Your task to perform on an android device: Open accessibility settings Image 0: 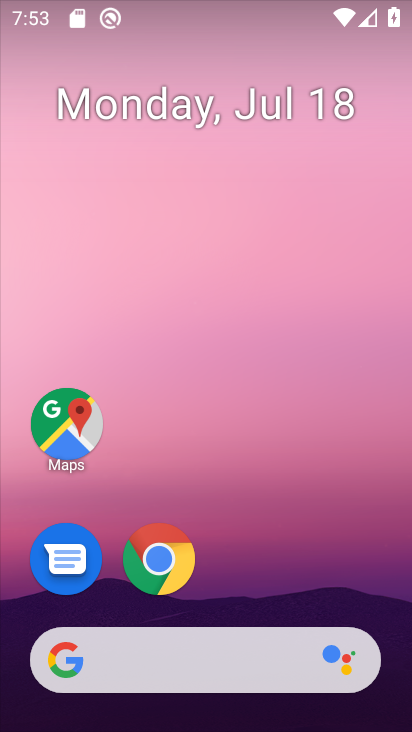
Step 0: drag from (301, 551) to (346, 127)
Your task to perform on an android device: Open accessibility settings Image 1: 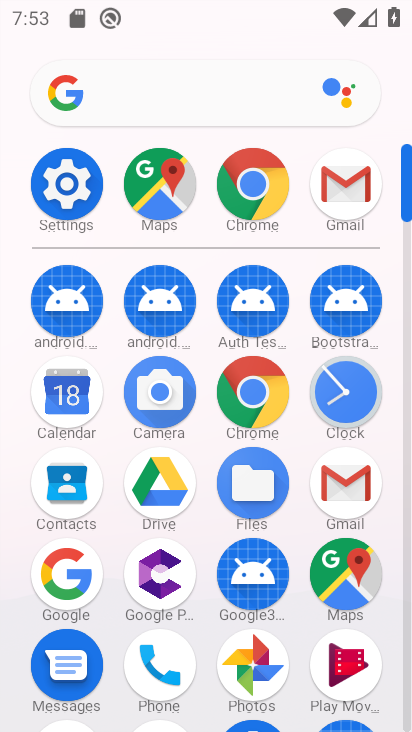
Step 1: click (76, 191)
Your task to perform on an android device: Open accessibility settings Image 2: 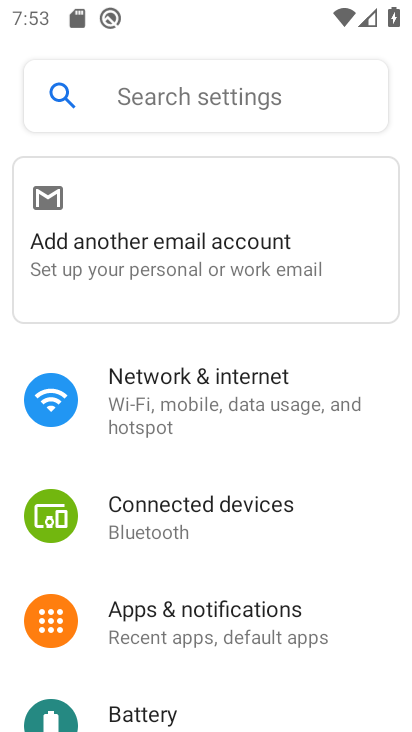
Step 2: drag from (349, 568) to (356, 471)
Your task to perform on an android device: Open accessibility settings Image 3: 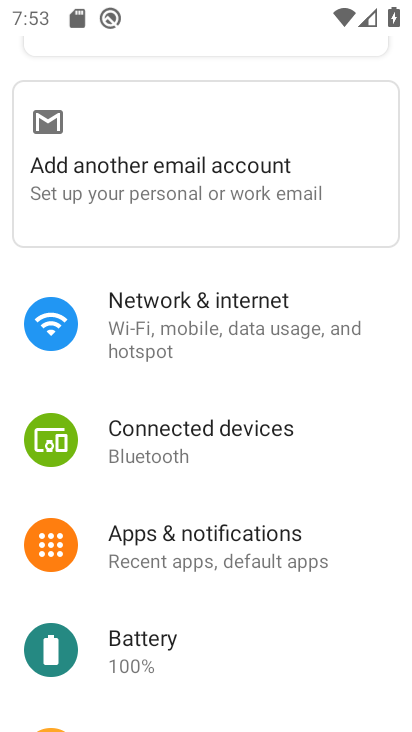
Step 3: drag from (360, 619) to (363, 532)
Your task to perform on an android device: Open accessibility settings Image 4: 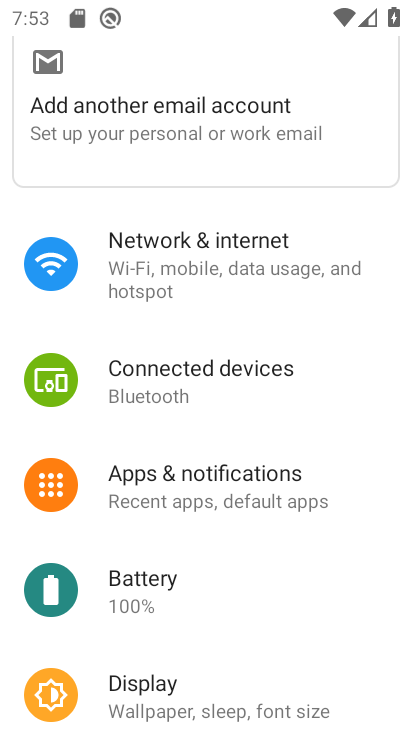
Step 4: drag from (335, 599) to (344, 525)
Your task to perform on an android device: Open accessibility settings Image 5: 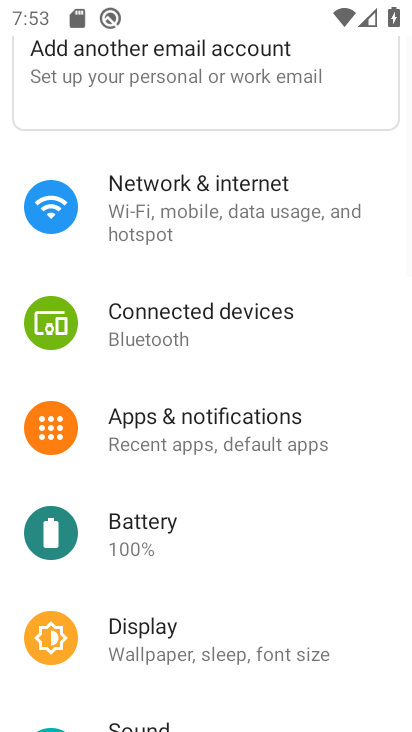
Step 5: drag from (343, 586) to (348, 503)
Your task to perform on an android device: Open accessibility settings Image 6: 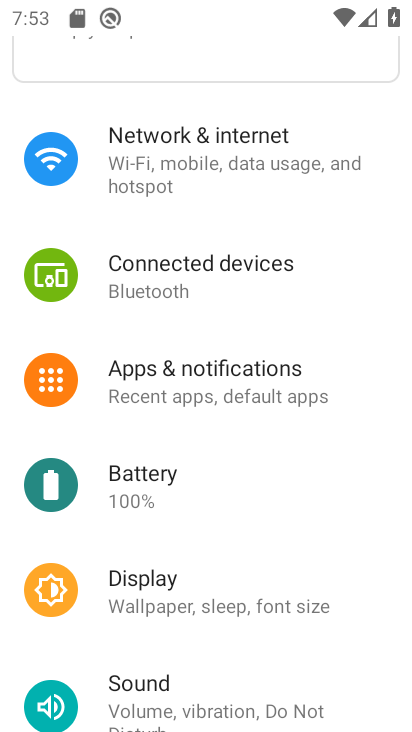
Step 6: drag from (351, 631) to (349, 526)
Your task to perform on an android device: Open accessibility settings Image 7: 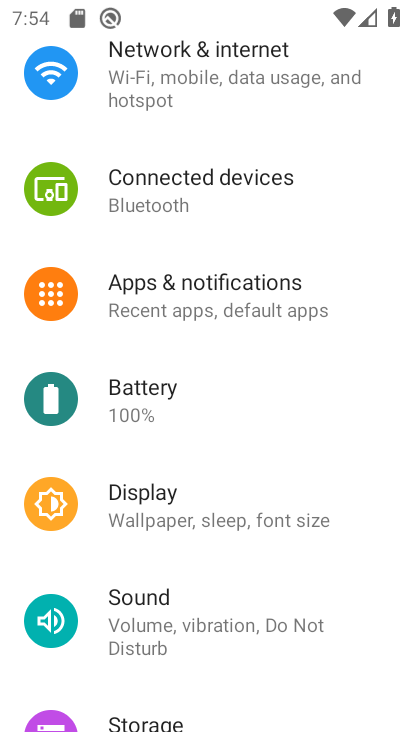
Step 7: drag from (353, 639) to (380, 519)
Your task to perform on an android device: Open accessibility settings Image 8: 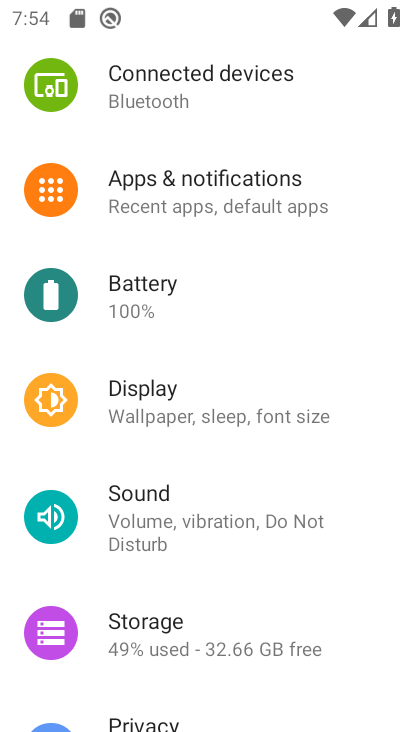
Step 8: drag from (362, 602) to (364, 509)
Your task to perform on an android device: Open accessibility settings Image 9: 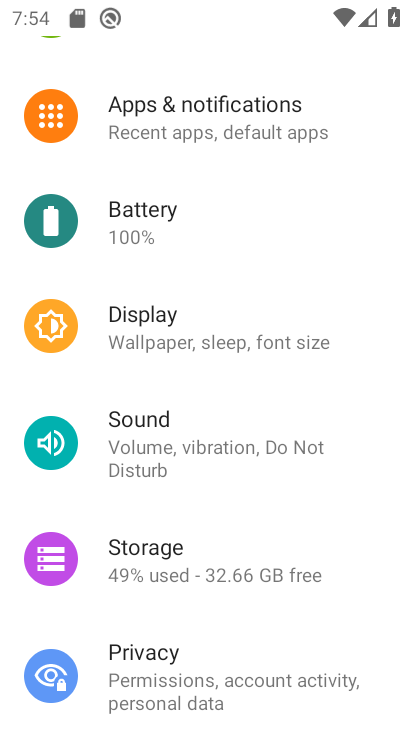
Step 9: drag from (341, 629) to (346, 476)
Your task to perform on an android device: Open accessibility settings Image 10: 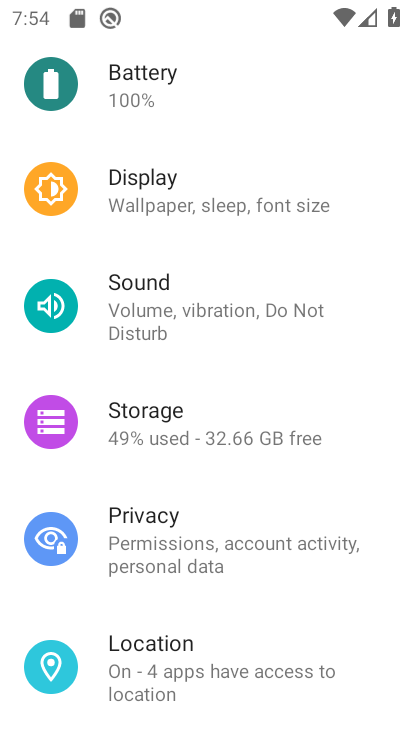
Step 10: drag from (334, 617) to (338, 518)
Your task to perform on an android device: Open accessibility settings Image 11: 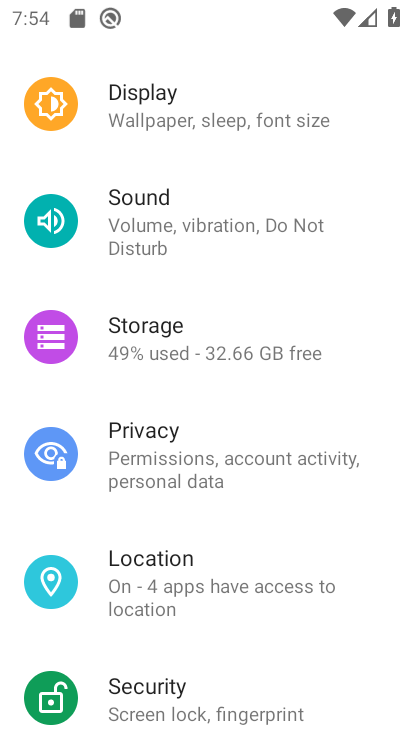
Step 11: drag from (327, 660) to (339, 569)
Your task to perform on an android device: Open accessibility settings Image 12: 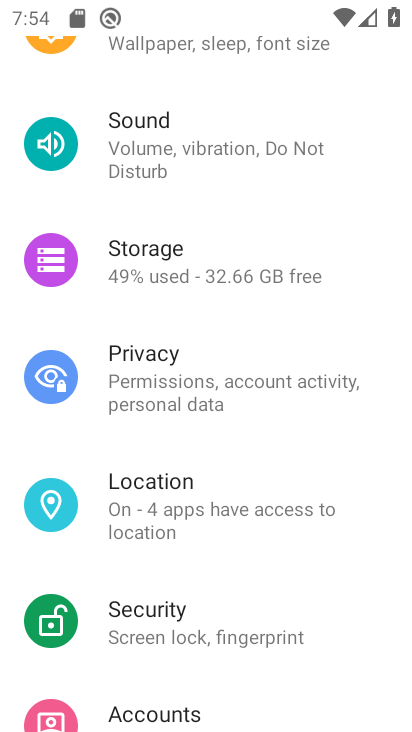
Step 12: drag from (334, 658) to (342, 574)
Your task to perform on an android device: Open accessibility settings Image 13: 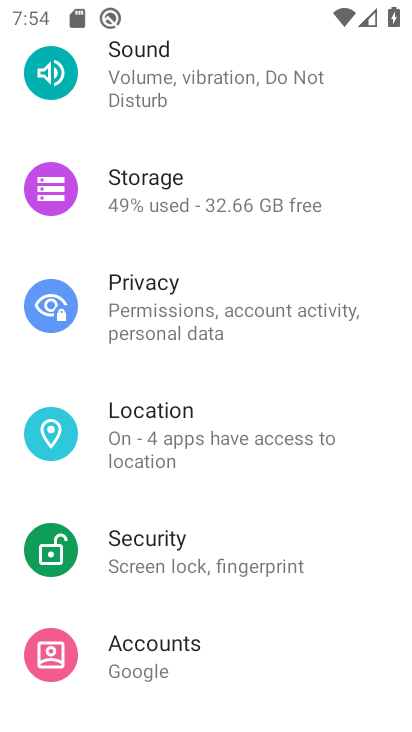
Step 13: drag from (324, 653) to (329, 565)
Your task to perform on an android device: Open accessibility settings Image 14: 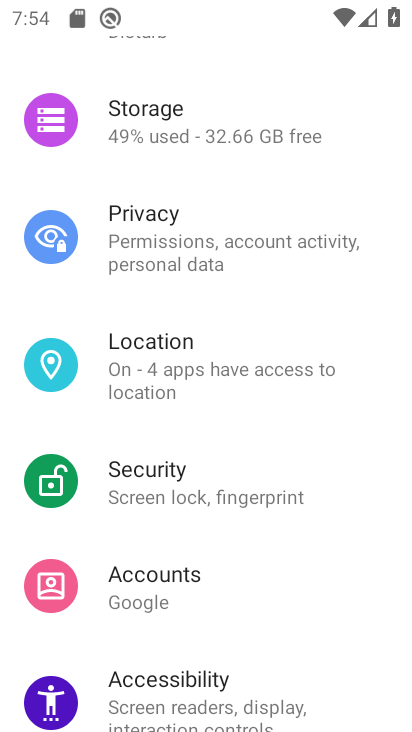
Step 14: drag from (295, 669) to (313, 551)
Your task to perform on an android device: Open accessibility settings Image 15: 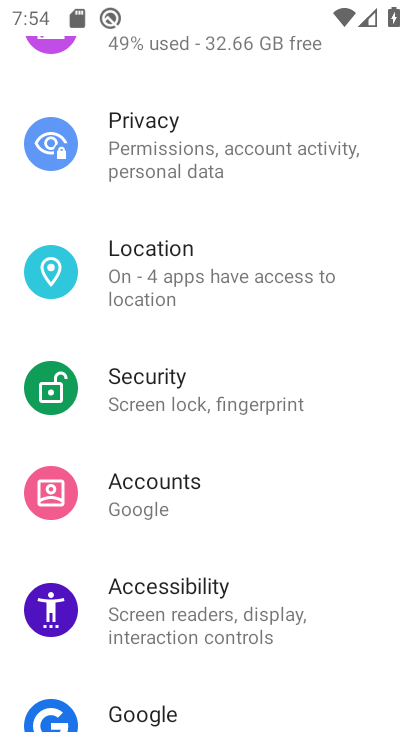
Step 15: click (307, 629)
Your task to perform on an android device: Open accessibility settings Image 16: 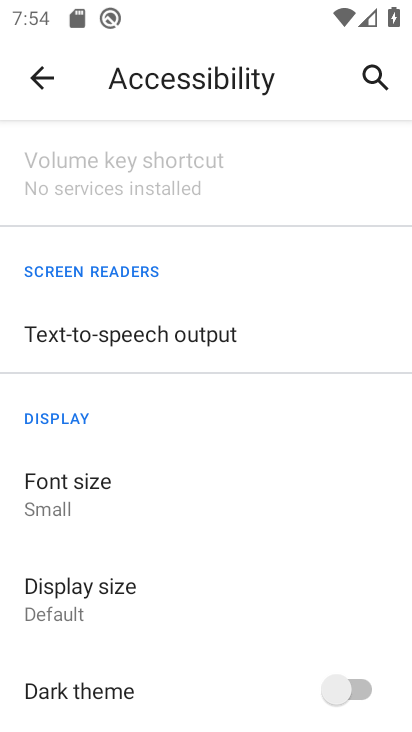
Step 16: task complete